Your task to perform on an android device: turn pop-ups off in chrome Image 0: 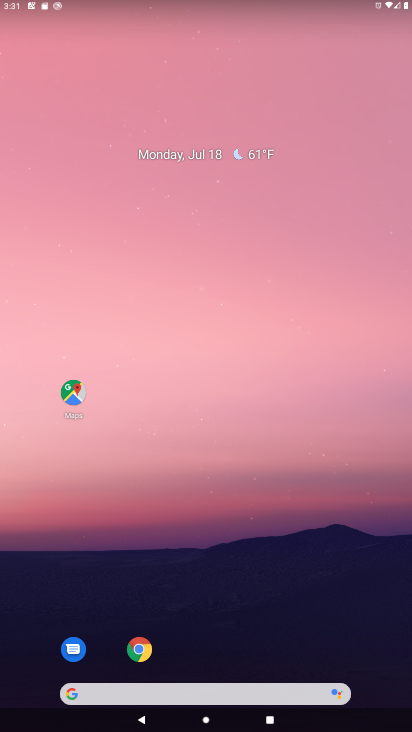
Step 0: click (143, 651)
Your task to perform on an android device: turn pop-ups off in chrome Image 1: 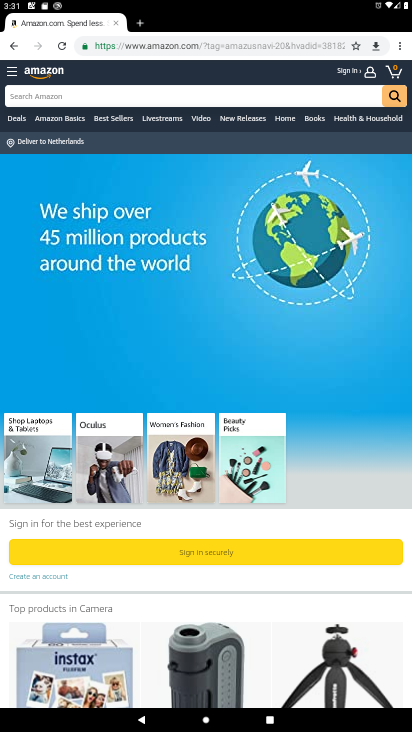
Step 1: click (400, 45)
Your task to perform on an android device: turn pop-ups off in chrome Image 2: 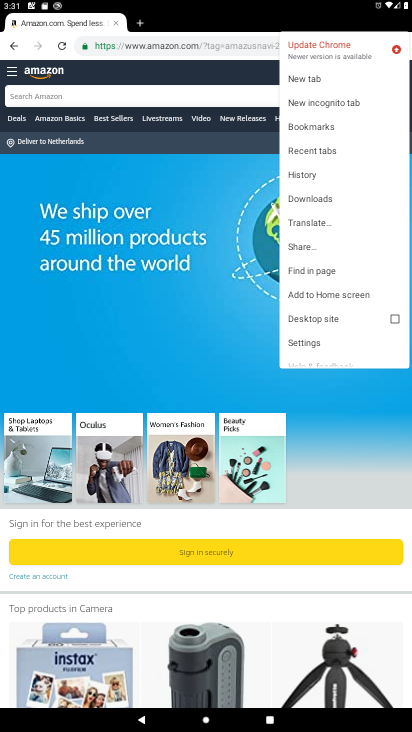
Step 2: click (341, 348)
Your task to perform on an android device: turn pop-ups off in chrome Image 3: 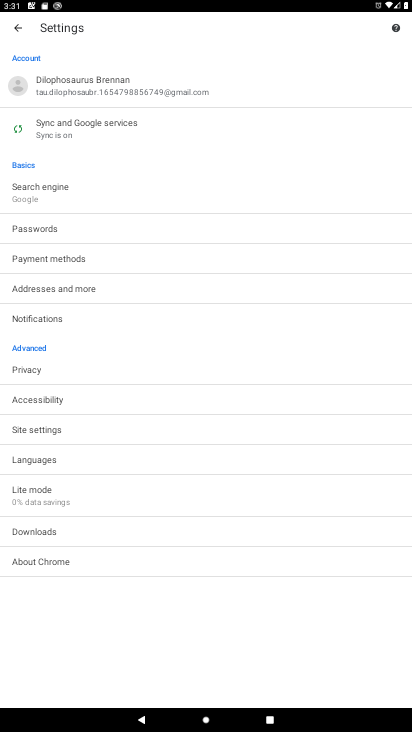
Step 3: click (61, 436)
Your task to perform on an android device: turn pop-ups off in chrome Image 4: 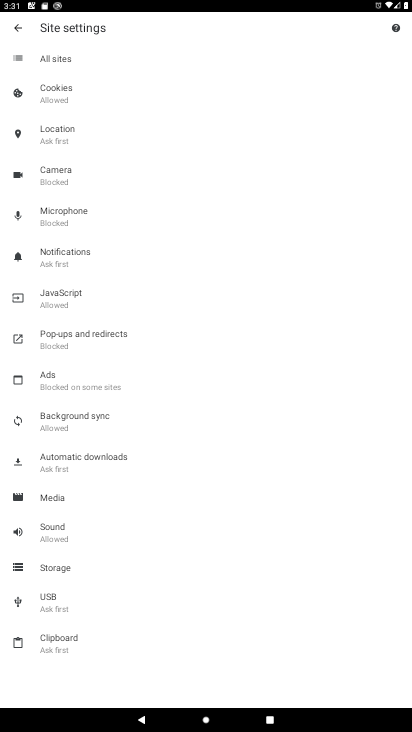
Step 4: click (112, 333)
Your task to perform on an android device: turn pop-ups off in chrome Image 5: 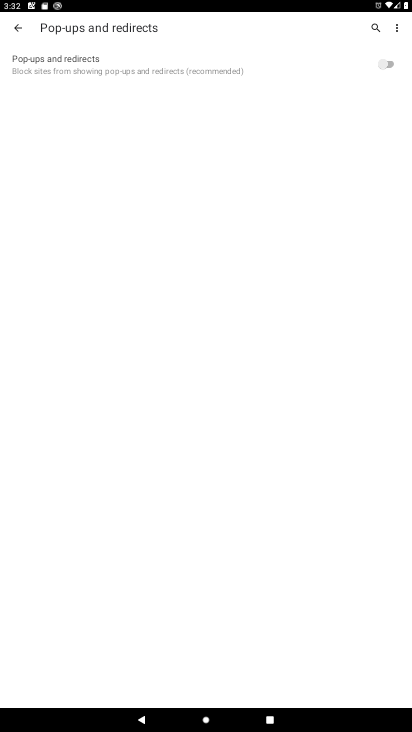
Step 5: task complete